Your task to perform on an android device: Open battery settings Image 0: 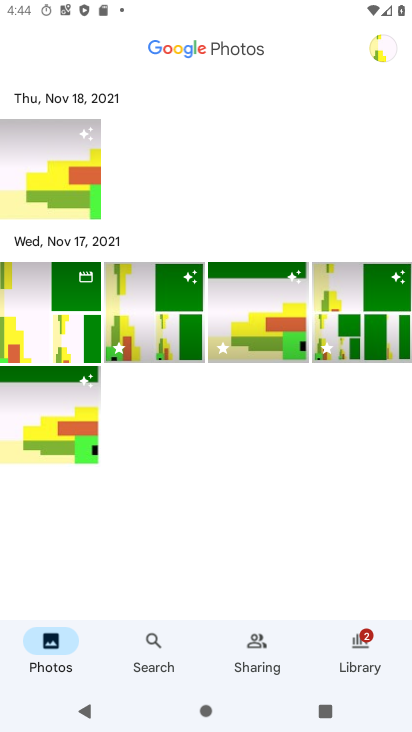
Step 0: press home button
Your task to perform on an android device: Open battery settings Image 1: 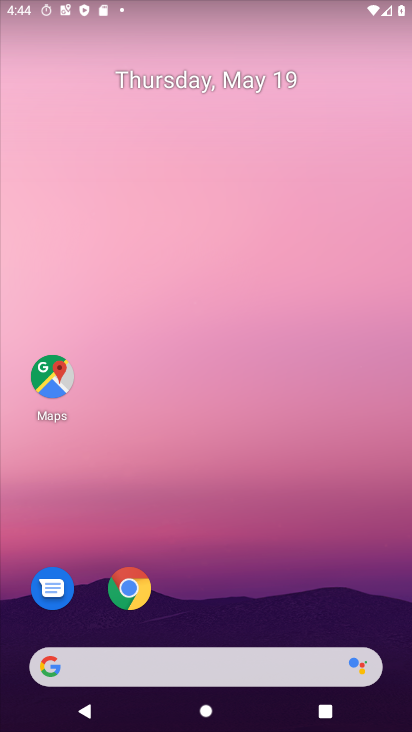
Step 1: drag from (205, 590) to (211, 14)
Your task to perform on an android device: Open battery settings Image 2: 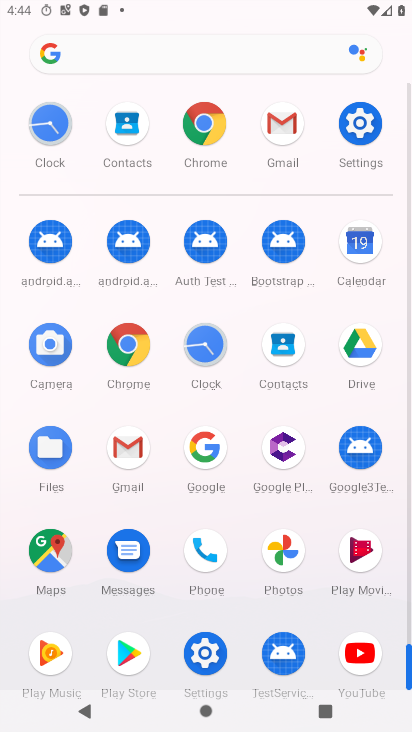
Step 2: click (369, 140)
Your task to perform on an android device: Open battery settings Image 3: 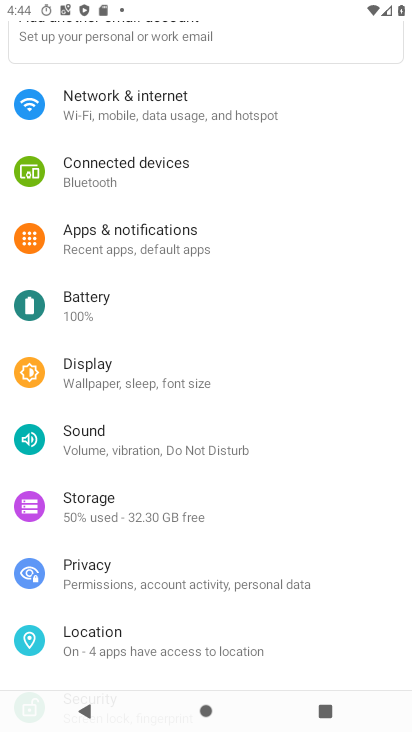
Step 3: click (131, 308)
Your task to perform on an android device: Open battery settings Image 4: 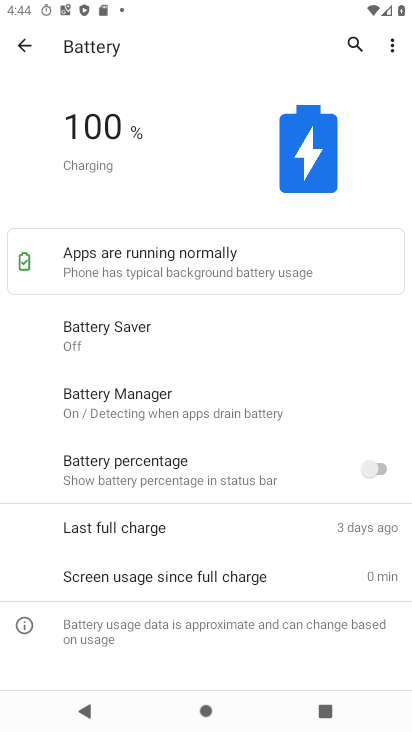
Step 4: task complete